Your task to perform on an android device: check out phone information Image 0: 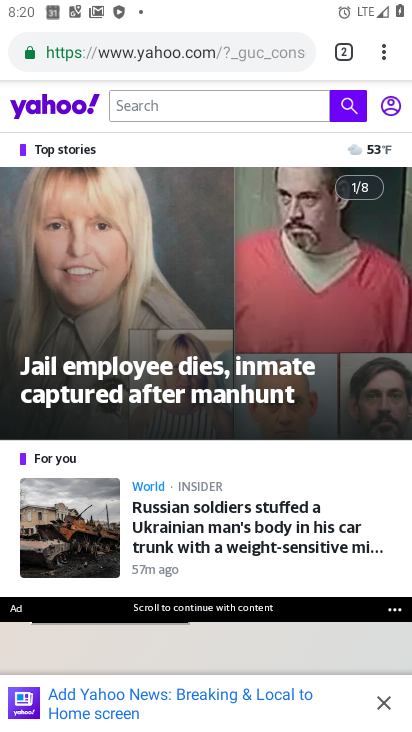
Step 0: press home button
Your task to perform on an android device: check out phone information Image 1: 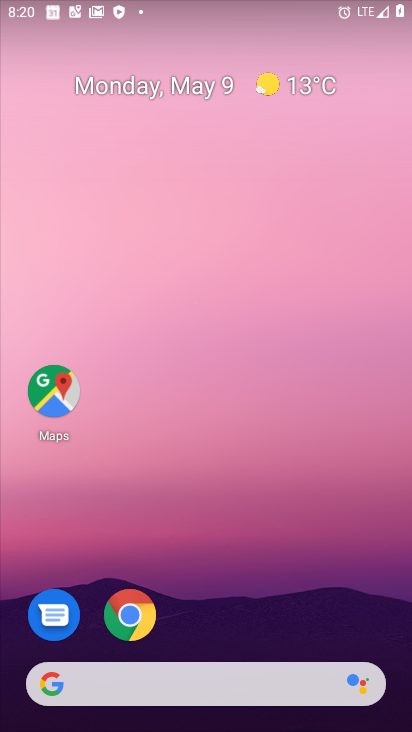
Step 1: drag from (231, 636) to (178, 8)
Your task to perform on an android device: check out phone information Image 2: 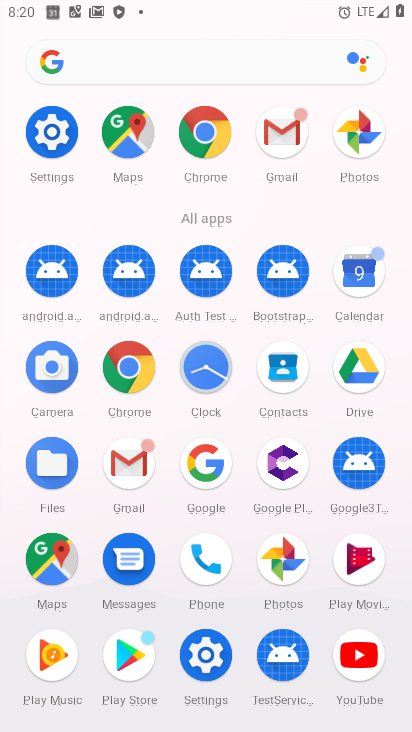
Step 2: click (54, 145)
Your task to perform on an android device: check out phone information Image 3: 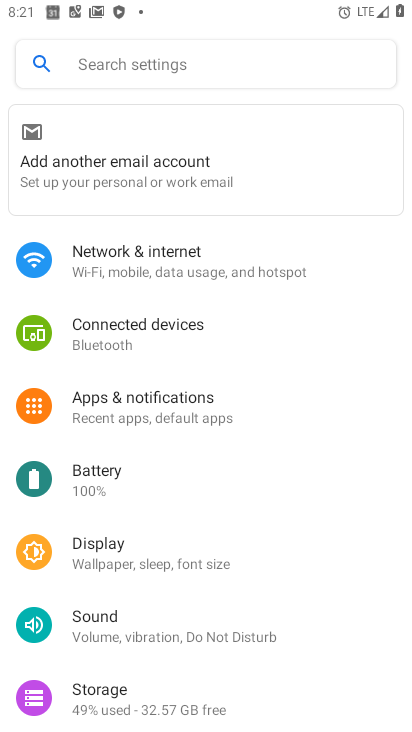
Step 3: drag from (119, 664) to (214, 241)
Your task to perform on an android device: check out phone information Image 4: 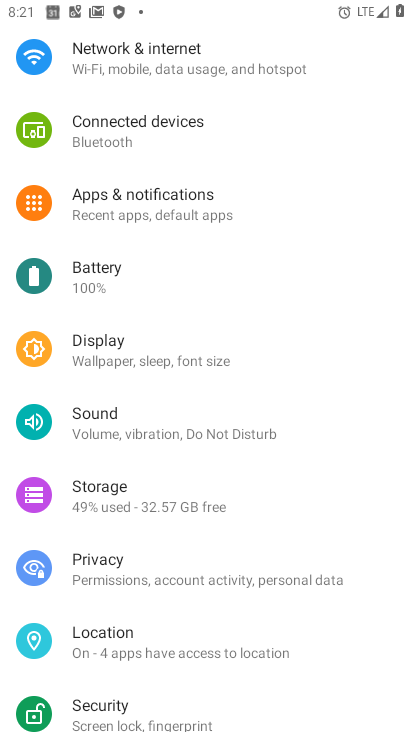
Step 4: drag from (129, 659) to (228, 236)
Your task to perform on an android device: check out phone information Image 5: 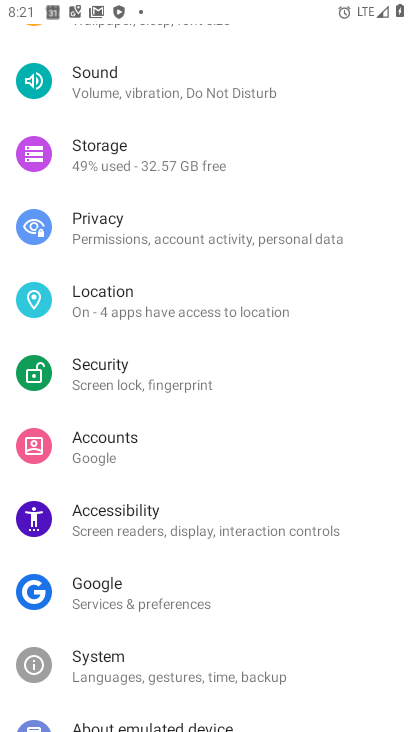
Step 5: drag from (96, 499) to (181, 172)
Your task to perform on an android device: check out phone information Image 6: 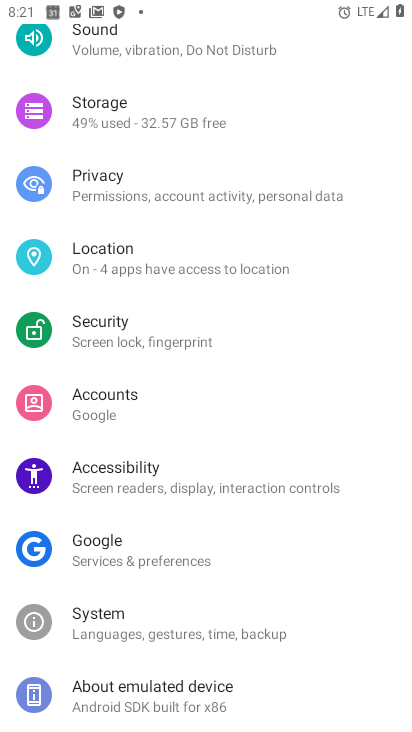
Step 6: click (166, 692)
Your task to perform on an android device: check out phone information Image 7: 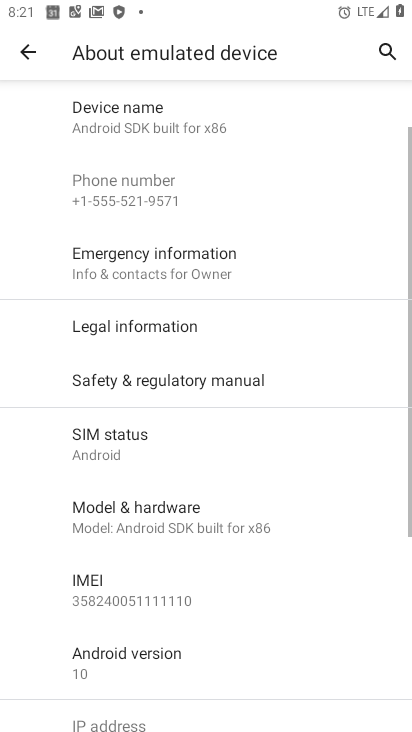
Step 7: drag from (166, 692) to (245, 325)
Your task to perform on an android device: check out phone information Image 8: 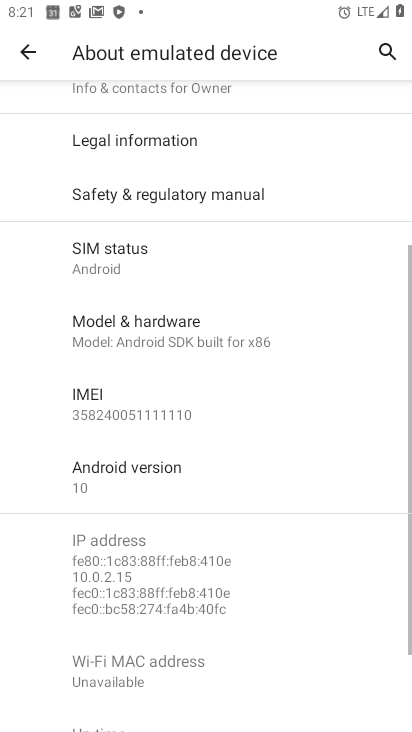
Step 8: drag from (203, 685) to (198, 141)
Your task to perform on an android device: check out phone information Image 9: 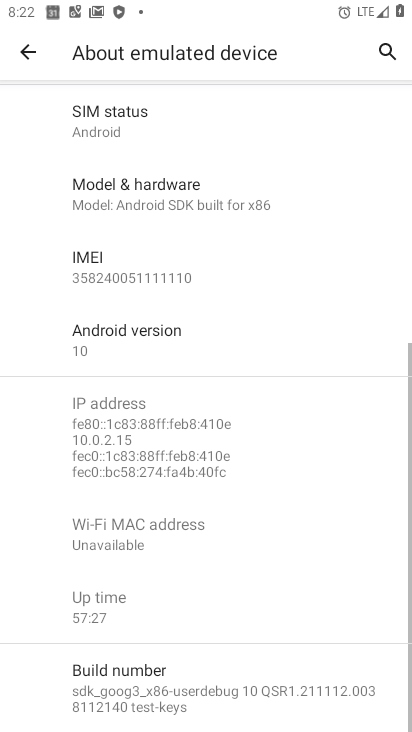
Step 9: click (39, 654)
Your task to perform on an android device: check out phone information Image 10: 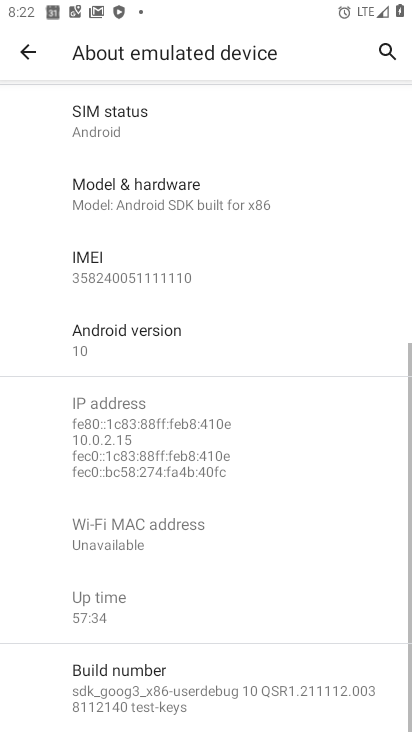
Step 10: click (39, 654)
Your task to perform on an android device: check out phone information Image 11: 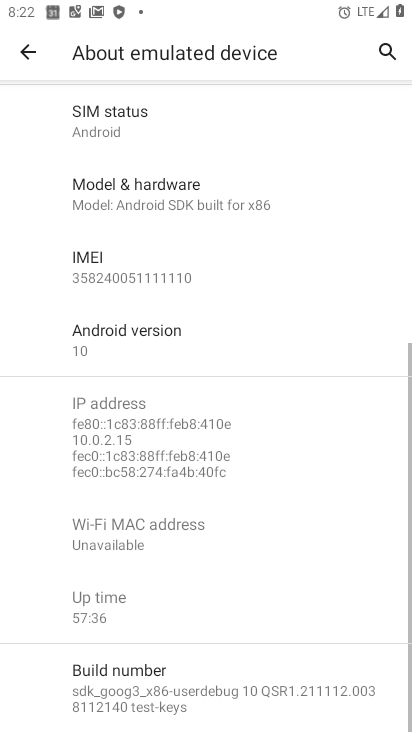
Step 11: task complete